Your task to perform on an android device: When is my next appointment? Image 0: 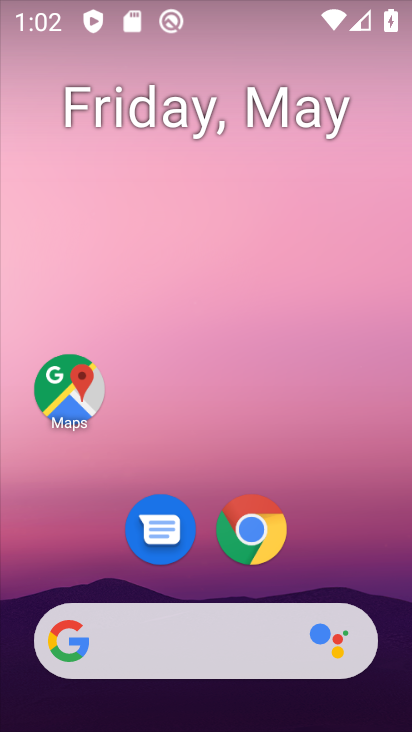
Step 0: drag from (214, 580) to (255, 164)
Your task to perform on an android device: When is my next appointment? Image 1: 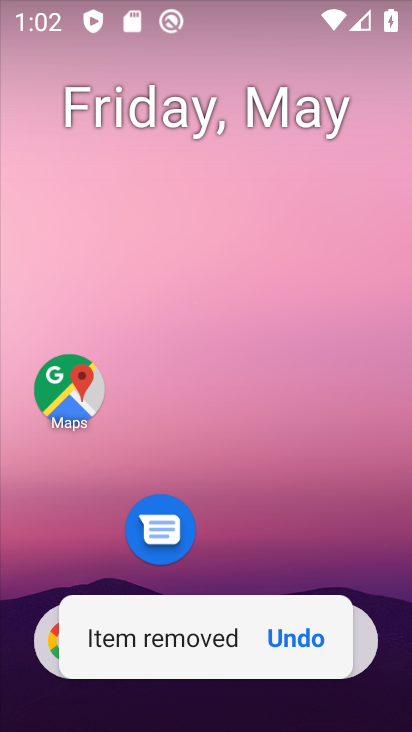
Step 1: drag from (217, 573) to (267, 80)
Your task to perform on an android device: When is my next appointment? Image 2: 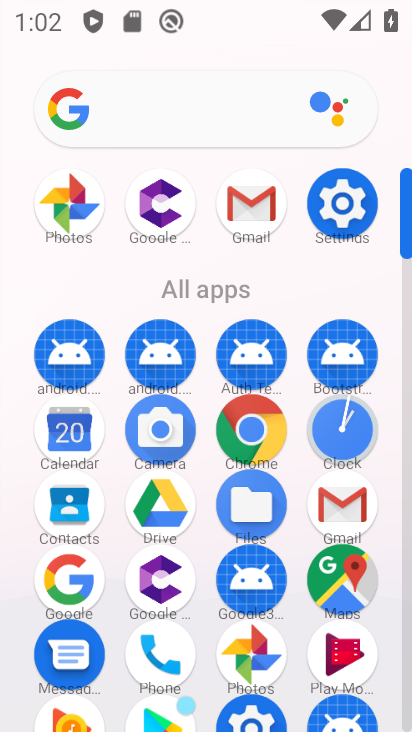
Step 2: click (80, 449)
Your task to perform on an android device: When is my next appointment? Image 3: 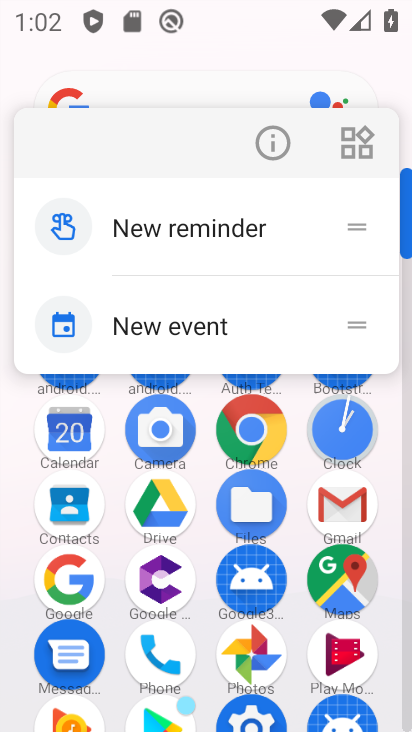
Step 3: click (292, 162)
Your task to perform on an android device: When is my next appointment? Image 4: 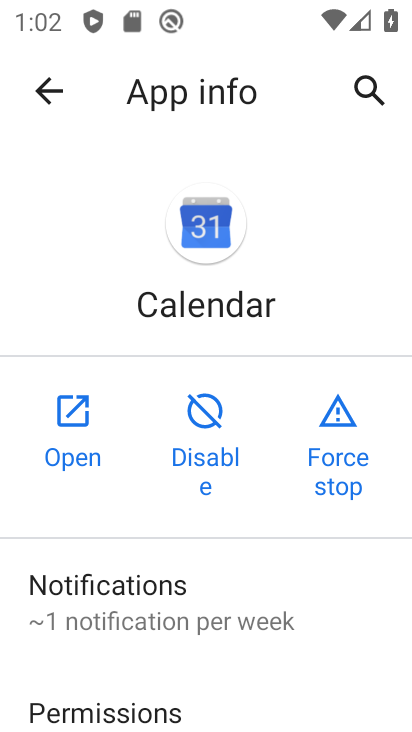
Step 4: click (67, 394)
Your task to perform on an android device: When is my next appointment? Image 5: 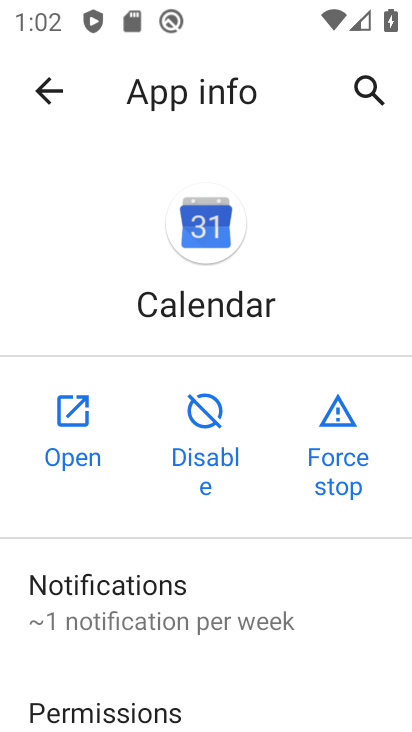
Step 5: click (67, 394)
Your task to perform on an android device: When is my next appointment? Image 6: 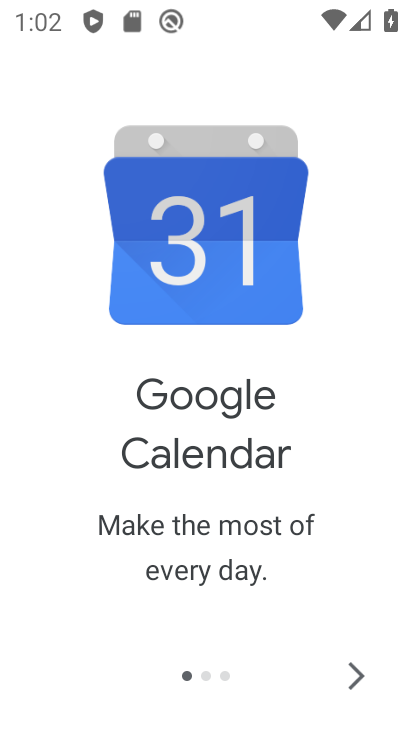
Step 6: click (351, 670)
Your task to perform on an android device: When is my next appointment? Image 7: 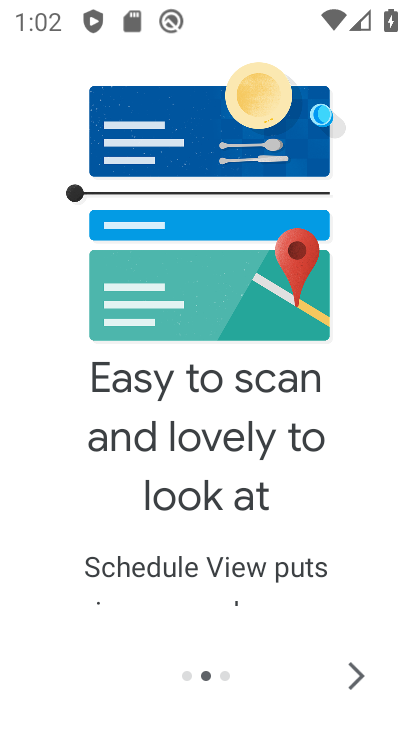
Step 7: click (343, 679)
Your task to perform on an android device: When is my next appointment? Image 8: 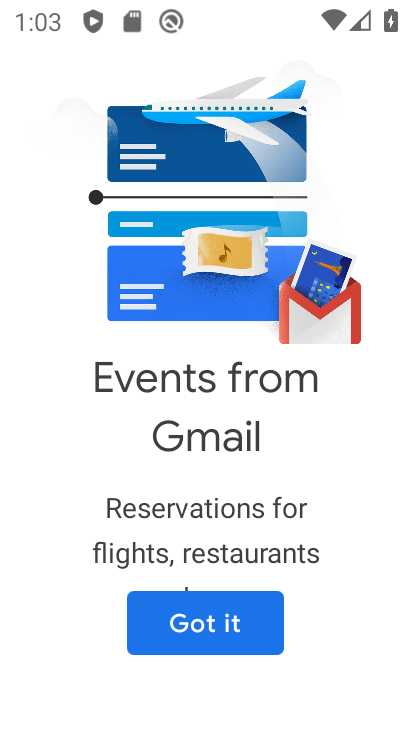
Step 8: click (222, 611)
Your task to perform on an android device: When is my next appointment? Image 9: 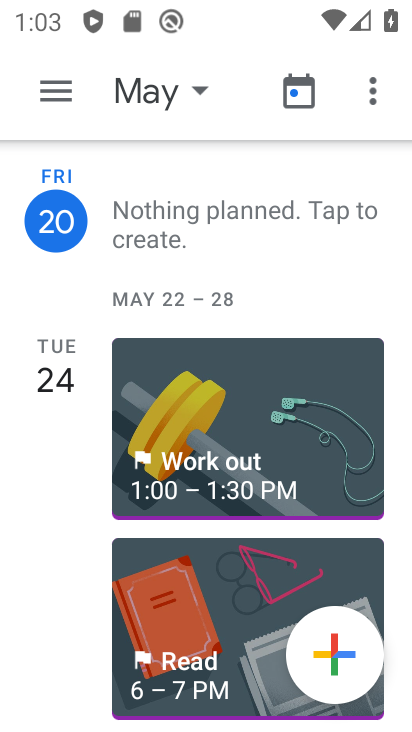
Step 9: click (159, 99)
Your task to perform on an android device: When is my next appointment? Image 10: 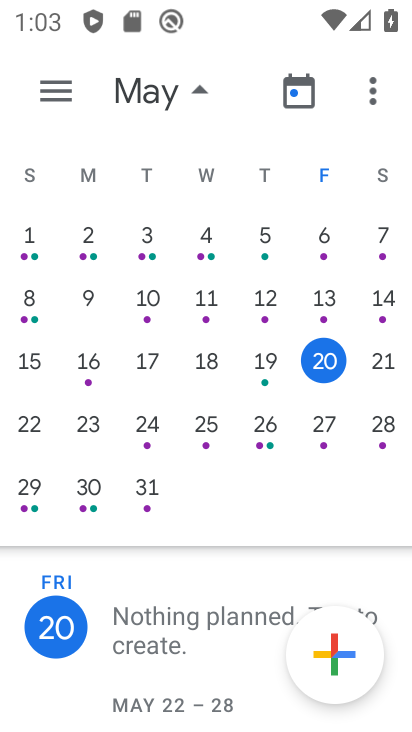
Step 10: click (157, 94)
Your task to perform on an android device: When is my next appointment? Image 11: 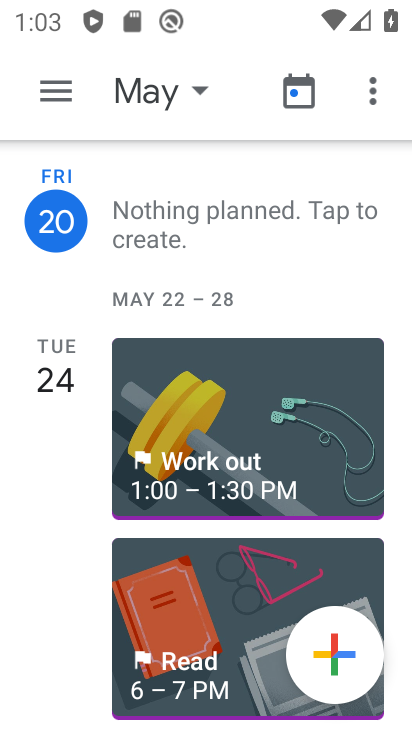
Step 11: click (157, 94)
Your task to perform on an android device: When is my next appointment? Image 12: 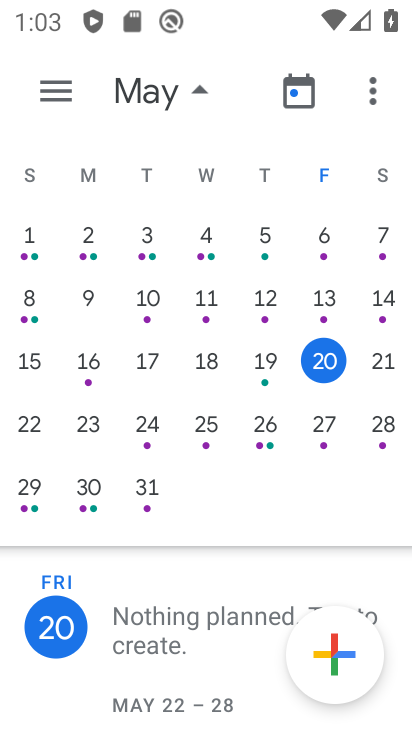
Step 12: click (331, 357)
Your task to perform on an android device: When is my next appointment? Image 13: 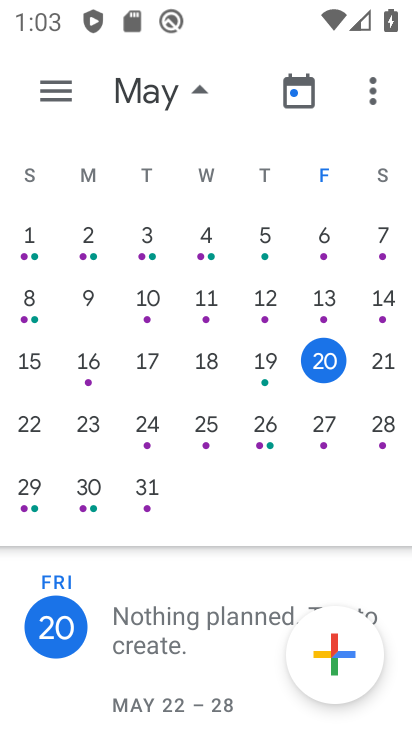
Step 13: drag from (221, 650) to (376, 264)
Your task to perform on an android device: When is my next appointment? Image 14: 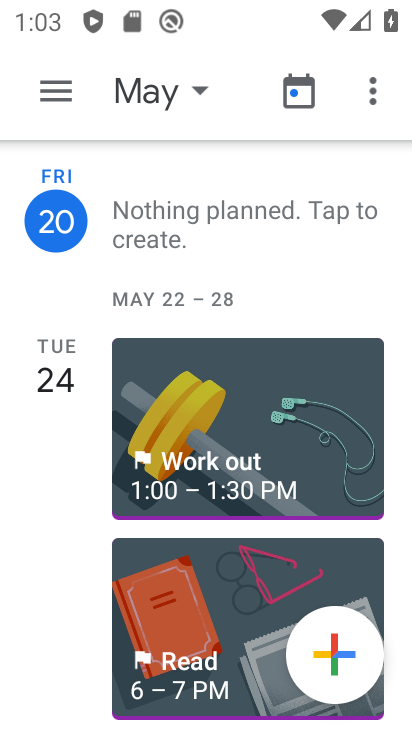
Step 14: click (227, 378)
Your task to perform on an android device: When is my next appointment? Image 15: 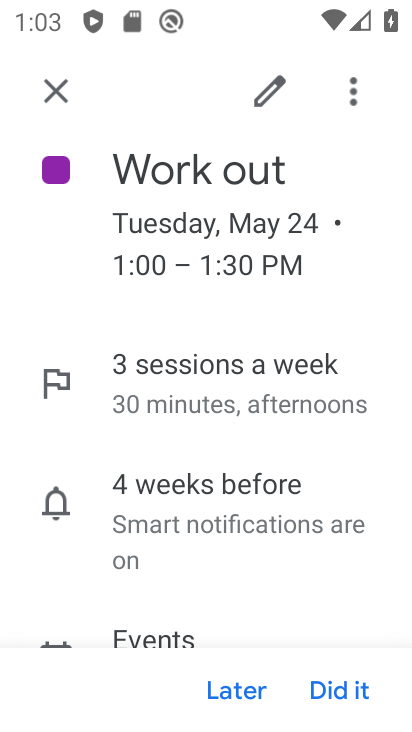
Step 15: task complete